Your task to perform on an android device: Open Reddit.com Image 0: 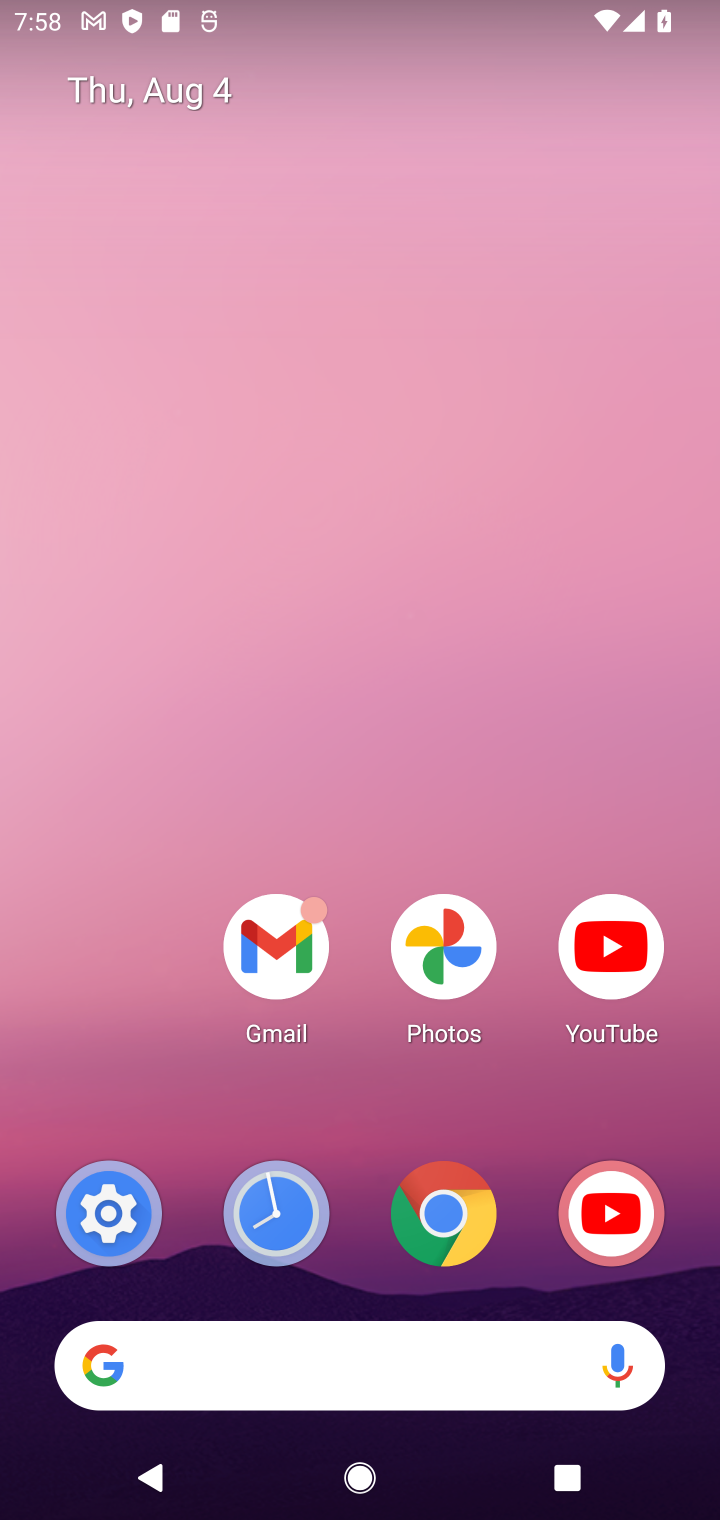
Step 0: click (443, 1203)
Your task to perform on an android device: Open Reddit.com Image 1: 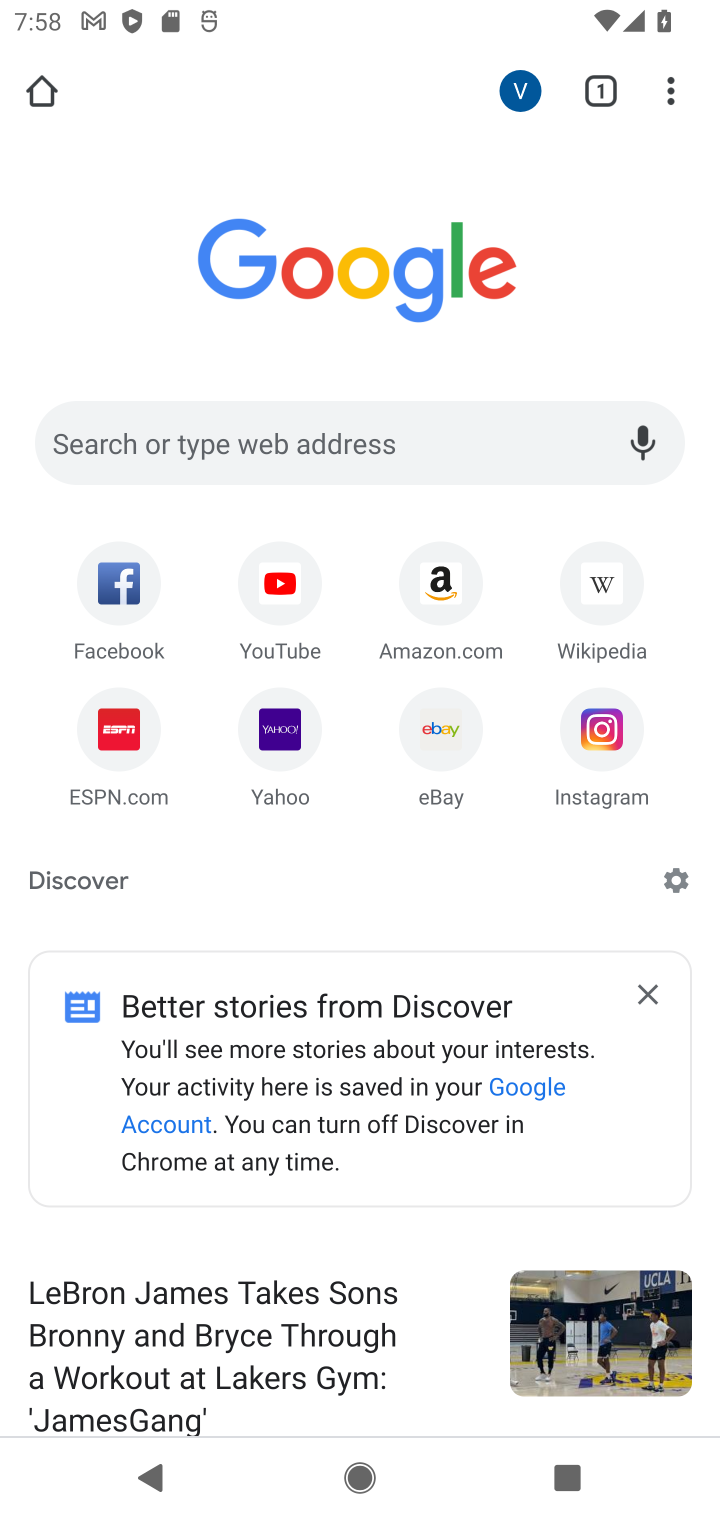
Step 1: click (249, 421)
Your task to perform on an android device: Open Reddit.com Image 2: 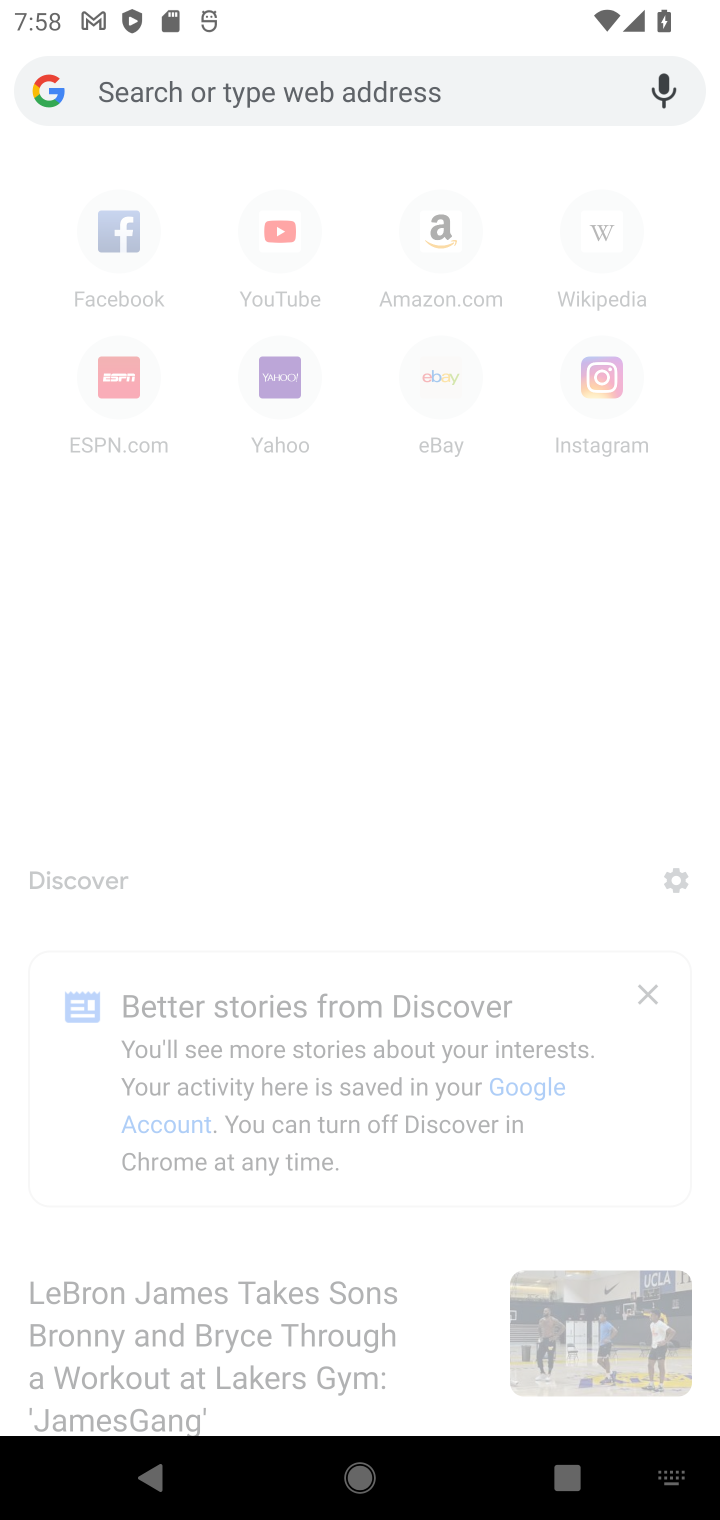
Step 2: type "reddit"
Your task to perform on an android device: Open Reddit.com Image 3: 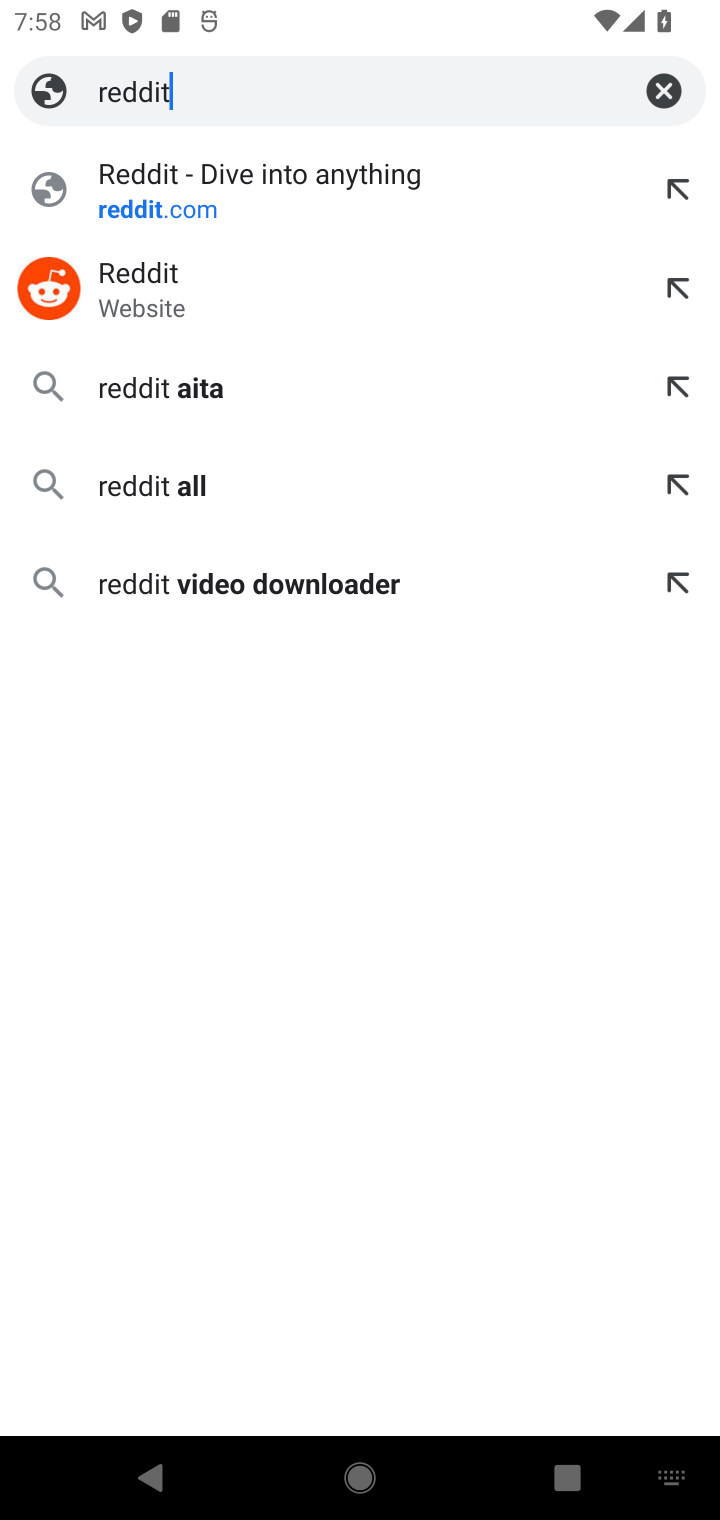
Step 3: click (439, 229)
Your task to perform on an android device: Open Reddit.com Image 4: 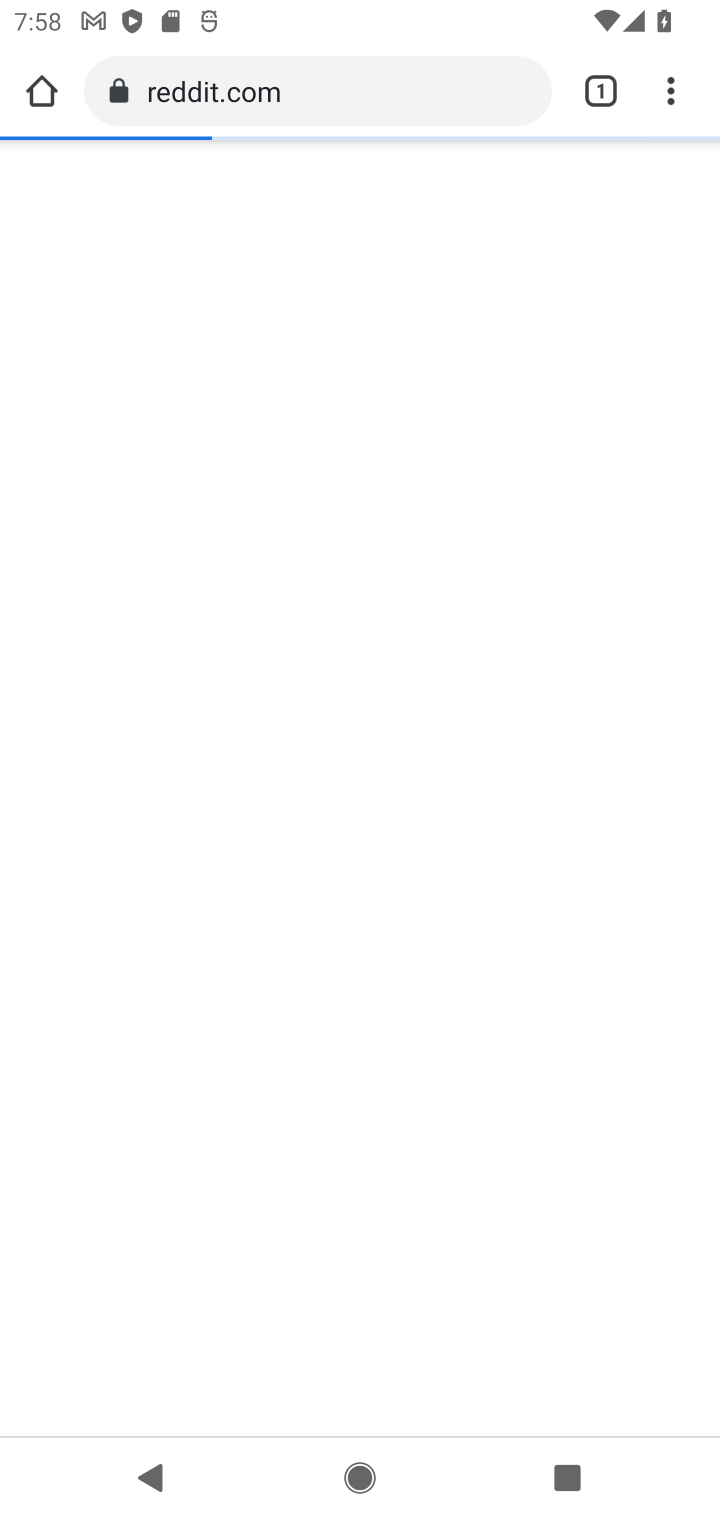
Step 4: task complete